Your task to perform on an android device: turn on improve location accuracy Image 0: 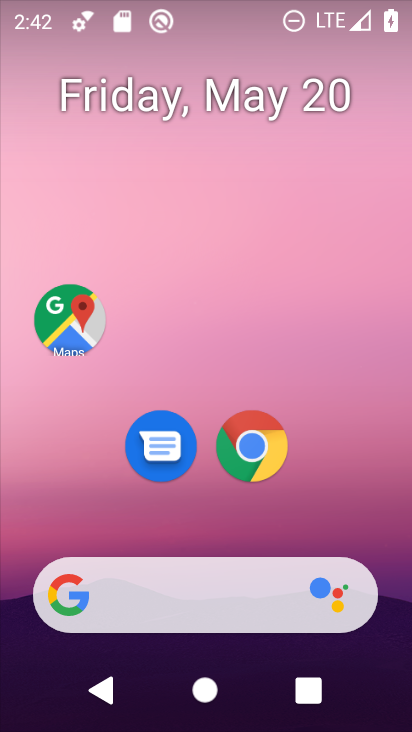
Step 0: drag from (362, 551) to (390, 457)
Your task to perform on an android device: turn on improve location accuracy Image 1: 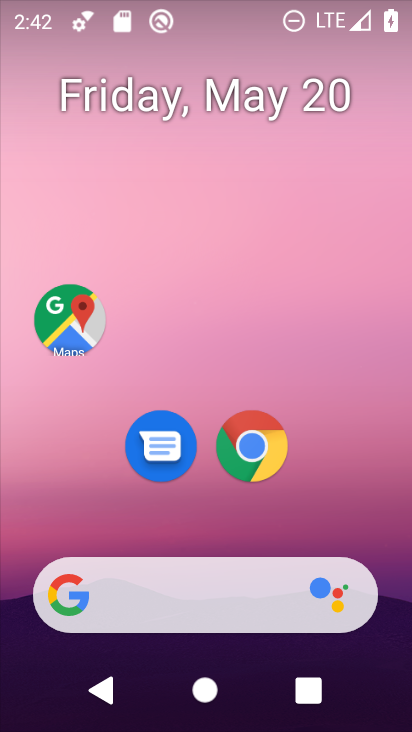
Step 1: drag from (359, 548) to (329, 6)
Your task to perform on an android device: turn on improve location accuracy Image 2: 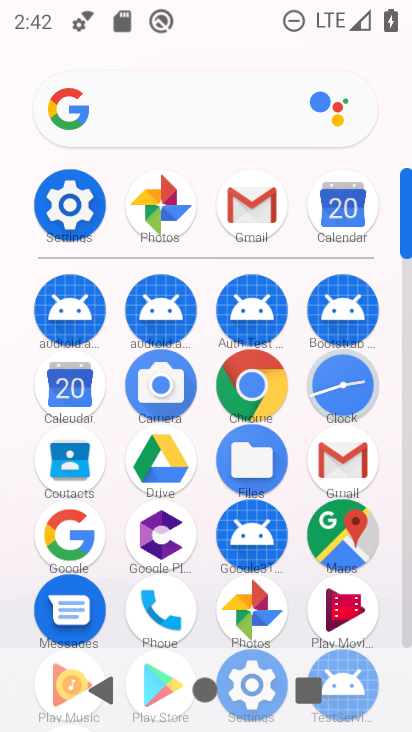
Step 2: click (76, 214)
Your task to perform on an android device: turn on improve location accuracy Image 3: 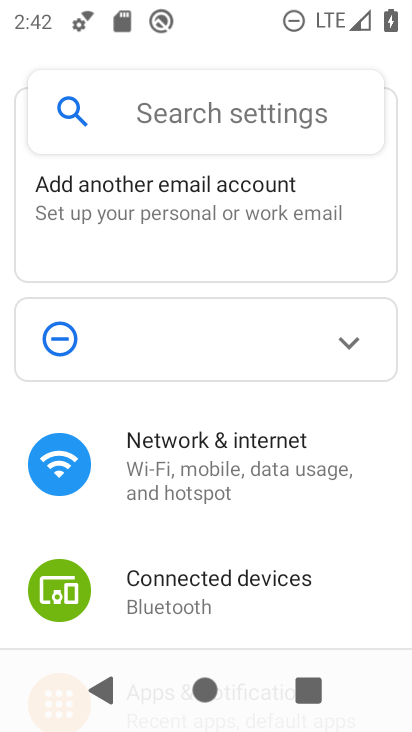
Step 3: drag from (371, 565) to (368, 95)
Your task to perform on an android device: turn on improve location accuracy Image 4: 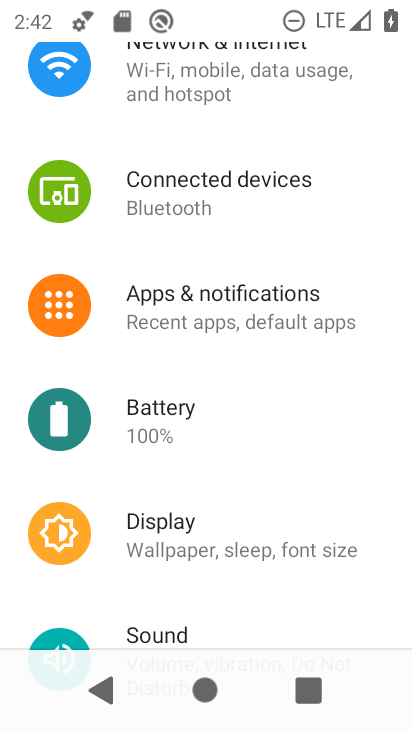
Step 4: drag from (350, 504) to (331, 155)
Your task to perform on an android device: turn on improve location accuracy Image 5: 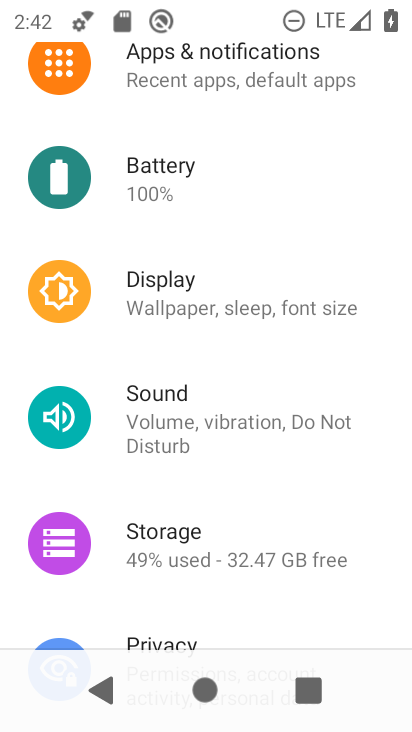
Step 5: drag from (366, 509) to (328, 108)
Your task to perform on an android device: turn on improve location accuracy Image 6: 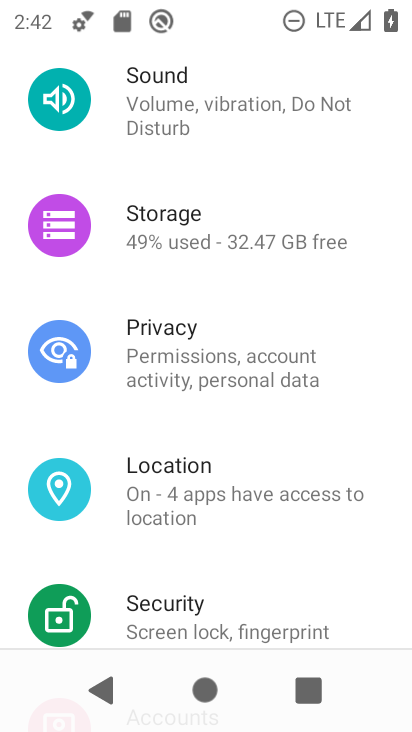
Step 6: click (165, 486)
Your task to perform on an android device: turn on improve location accuracy Image 7: 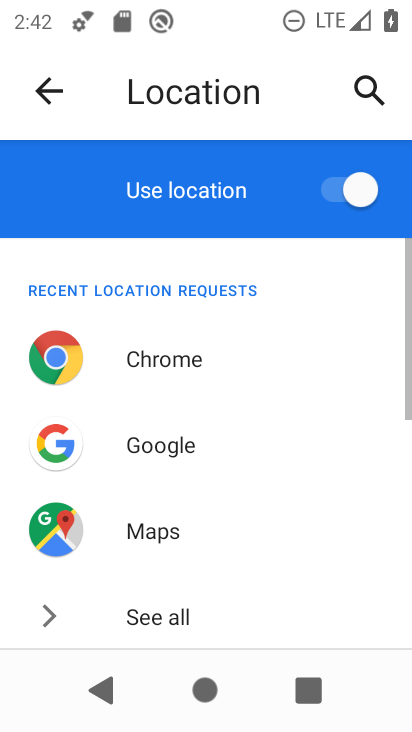
Step 7: drag from (244, 504) to (256, 160)
Your task to perform on an android device: turn on improve location accuracy Image 8: 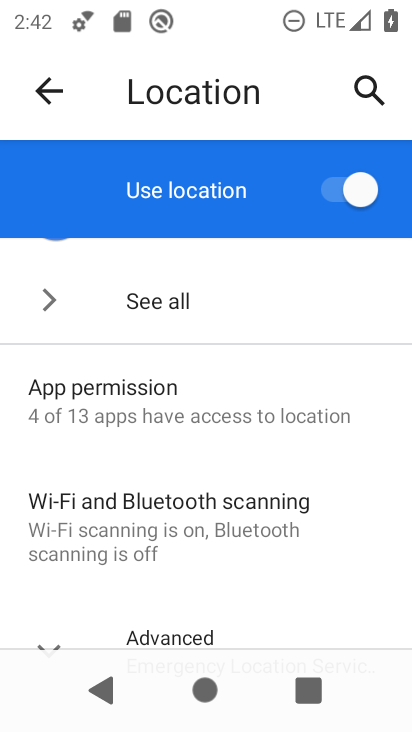
Step 8: drag from (194, 521) to (202, 210)
Your task to perform on an android device: turn on improve location accuracy Image 9: 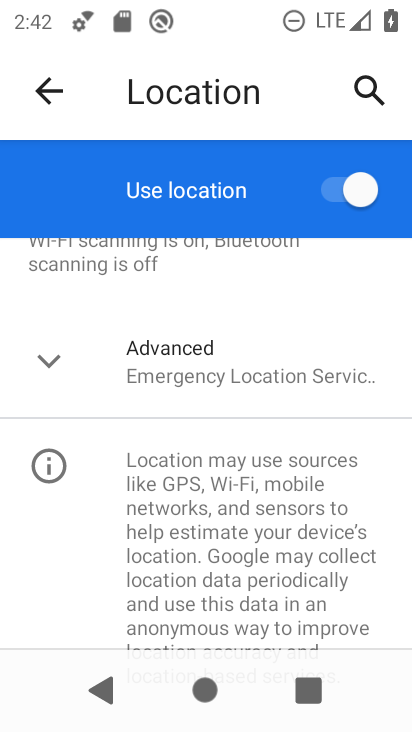
Step 9: click (51, 373)
Your task to perform on an android device: turn on improve location accuracy Image 10: 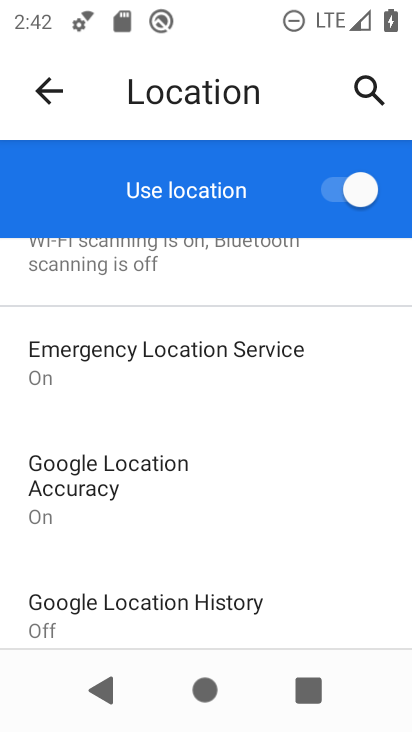
Step 10: click (88, 485)
Your task to perform on an android device: turn on improve location accuracy Image 11: 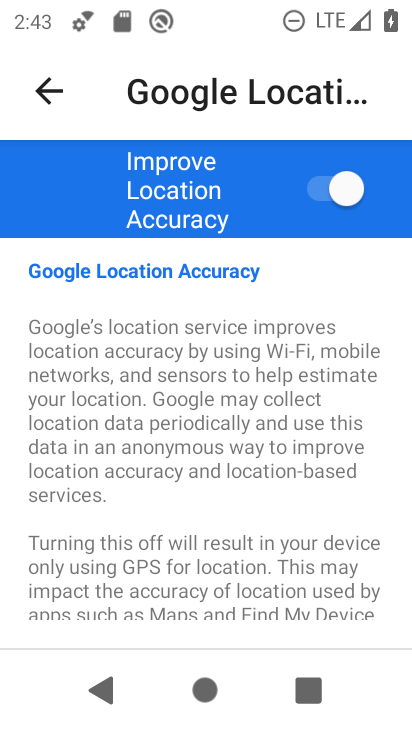
Step 11: task complete